Your task to perform on an android device: check battery use Image 0: 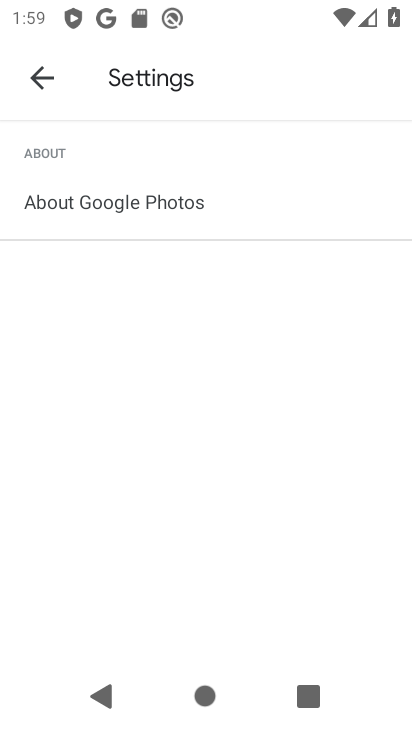
Step 0: press back button
Your task to perform on an android device: check battery use Image 1: 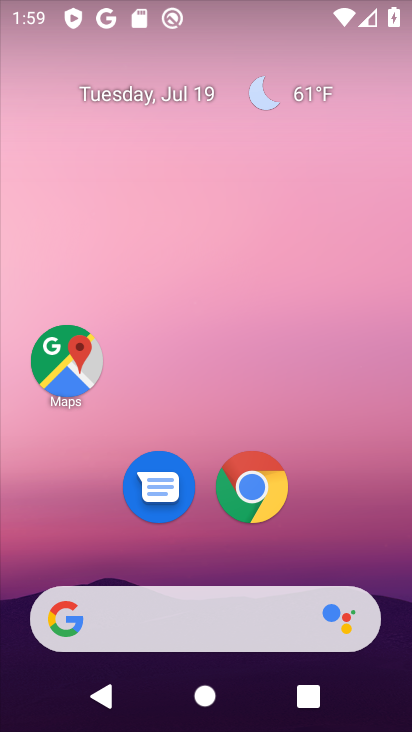
Step 1: drag from (218, 580) to (272, 5)
Your task to perform on an android device: check battery use Image 2: 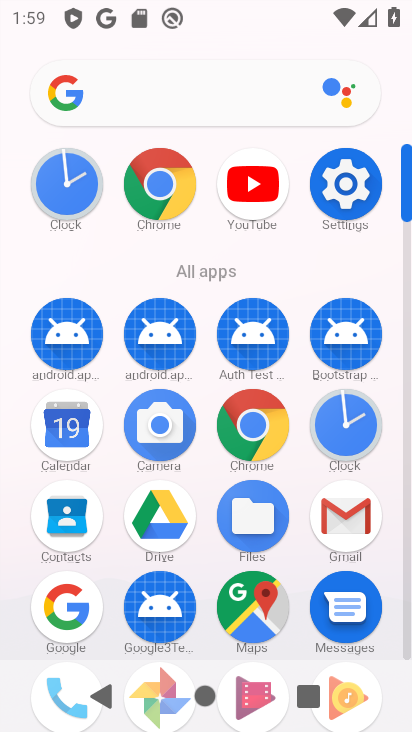
Step 2: click (368, 204)
Your task to perform on an android device: check battery use Image 3: 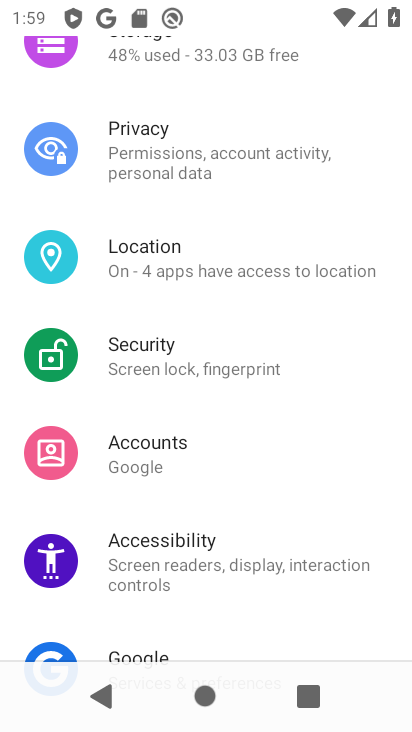
Step 3: drag from (202, 158) to (184, 727)
Your task to perform on an android device: check battery use Image 4: 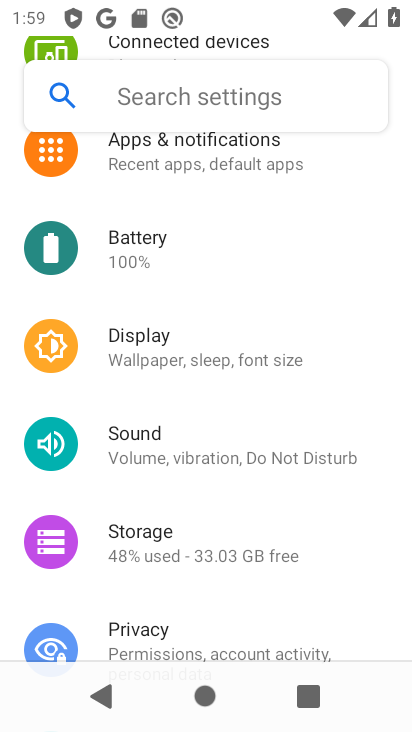
Step 4: click (155, 236)
Your task to perform on an android device: check battery use Image 5: 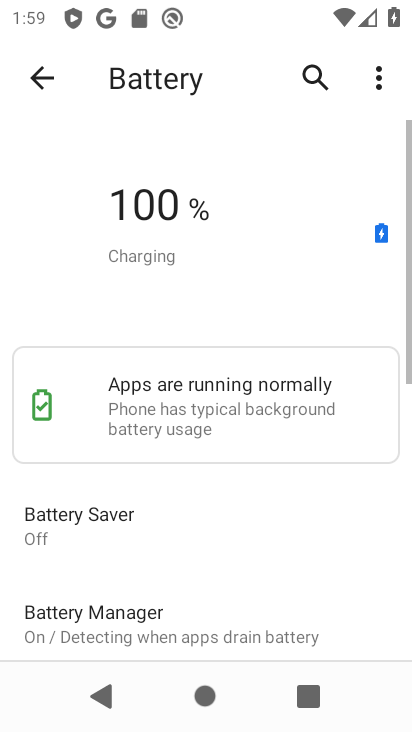
Step 5: click (387, 75)
Your task to perform on an android device: check battery use Image 6: 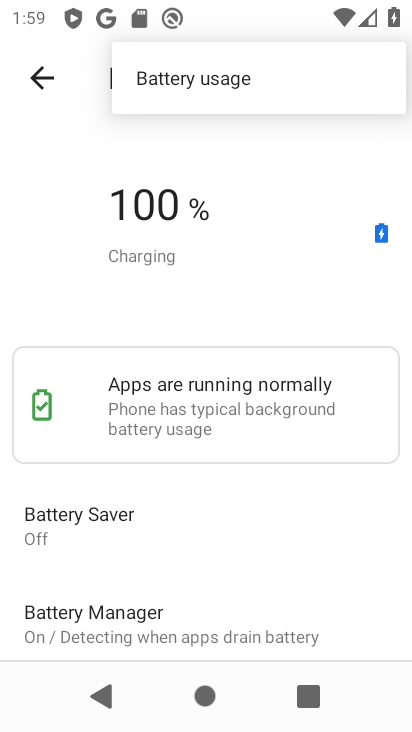
Step 6: click (263, 75)
Your task to perform on an android device: check battery use Image 7: 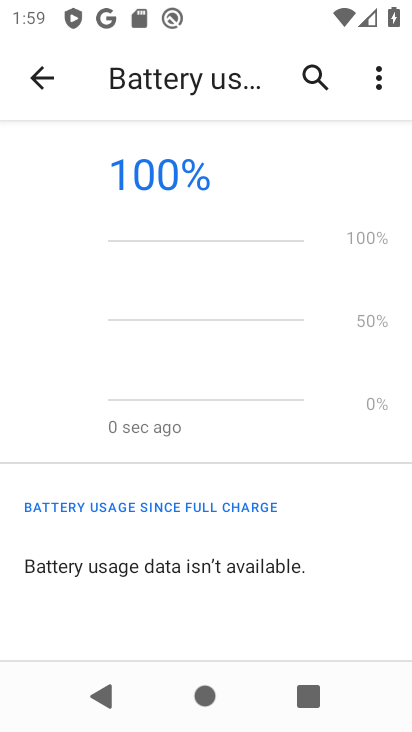
Step 7: click (394, 74)
Your task to perform on an android device: check battery use Image 8: 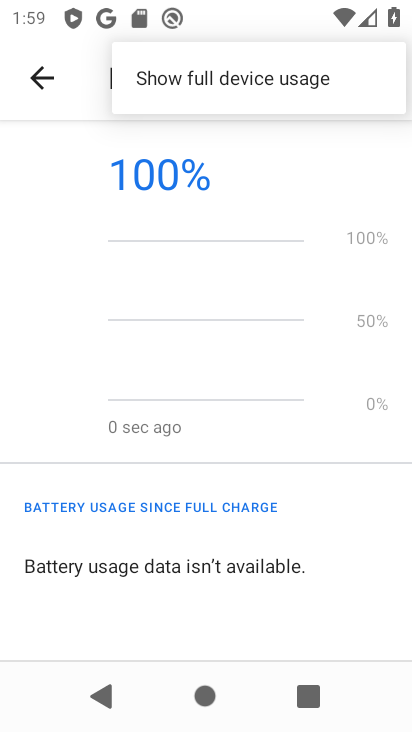
Step 8: click (168, 259)
Your task to perform on an android device: check battery use Image 9: 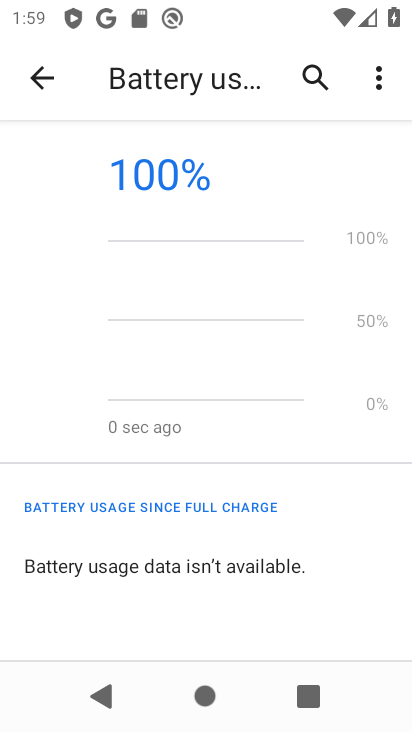
Step 9: task complete